Your task to perform on an android device: Do I have any events this weekend? Image 0: 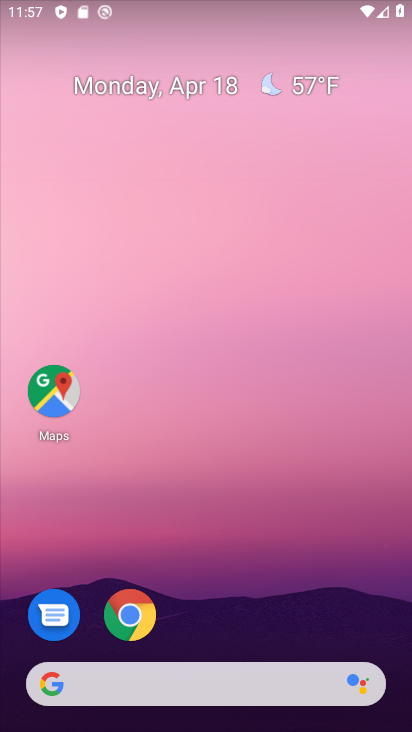
Step 0: drag from (214, 615) to (163, 202)
Your task to perform on an android device: Do I have any events this weekend? Image 1: 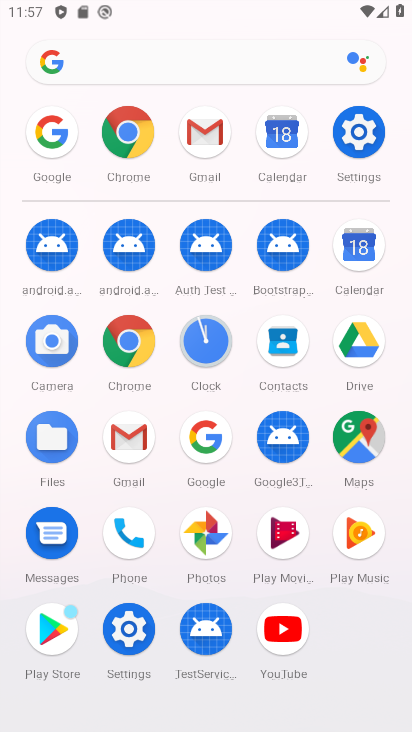
Step 1: click (361, 255)
Your task to perform on an android device: Do I have any events this weekend? Image 2: 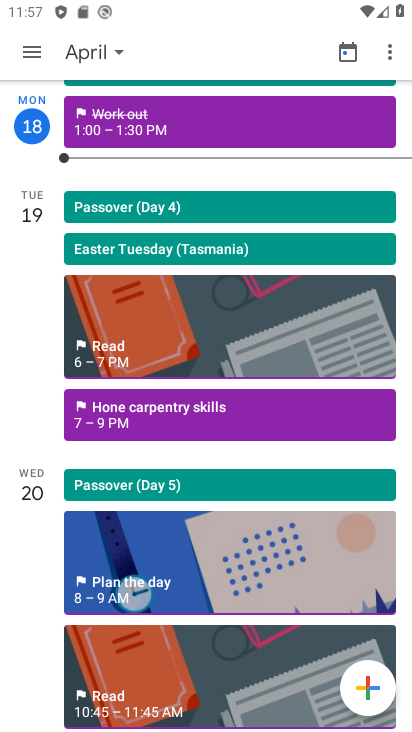
Step 2: click (104, 58)
Your task to perform on an android device: Do I have any events this weekend? Image 3: 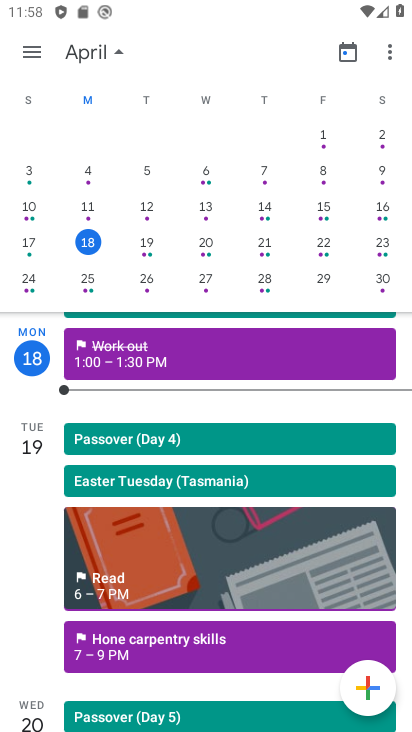
Step 3: click (149, 246)
Your task to perform on an android device: Do I have any events this weekend? Image 4: 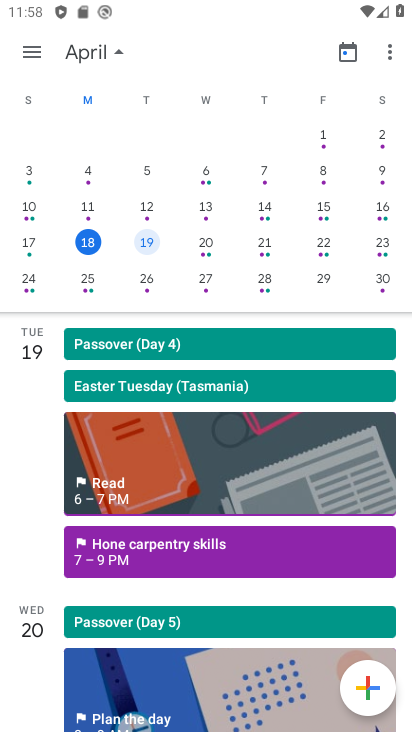
Step 4: click (365, 243)
Your task to perform on an android device: Do I have any events this weekend? Image 5: 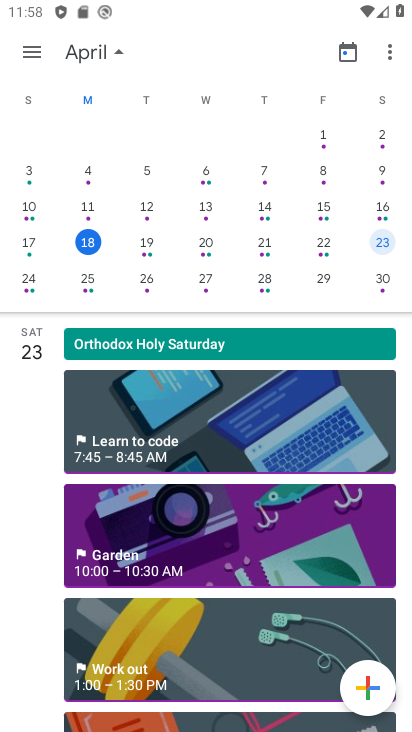
Step 5: drag from (194, 589) to (212, 417)
Your task to perform on an android device: Do I have any events this weekend? Image 6: 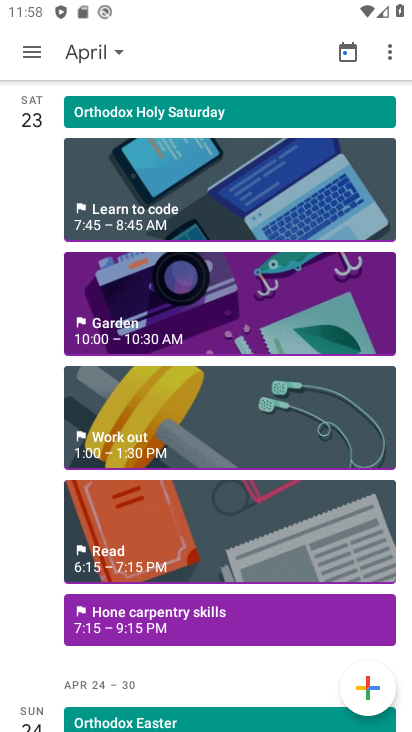
Step 6: click (167, 367)
Your task to perform on an android device: Do I have any events this weekend? Image 7: 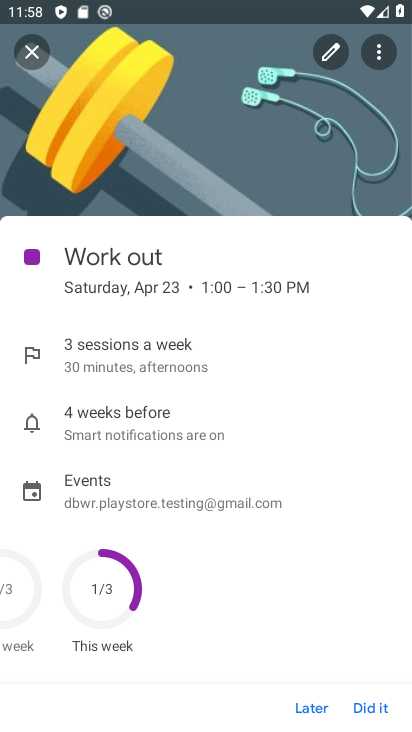
Step 7: task complete